Your task to perform on an android device: turn vacation reply on in the gmail app Image 0: 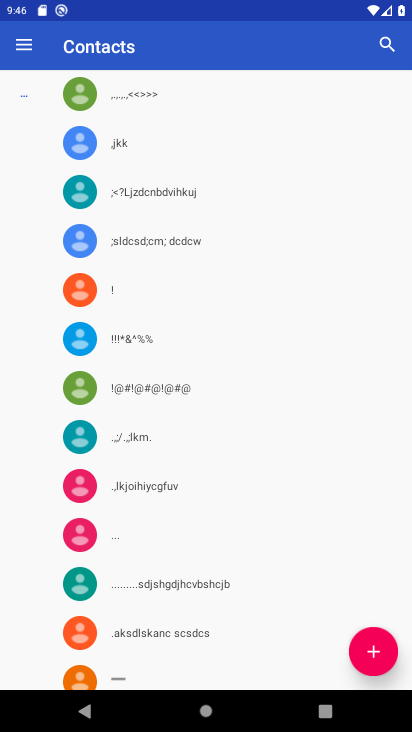
Step 0: press back button
Your task to perform on an android device: turn vacation reply on in the gmail app Image 1: 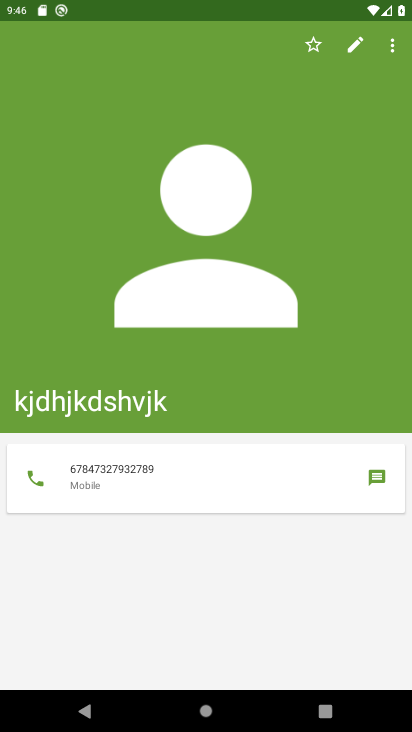
Step 1: press home button
Your task to perform on an android device: turn vacation reply on in the gmail app Image 2: 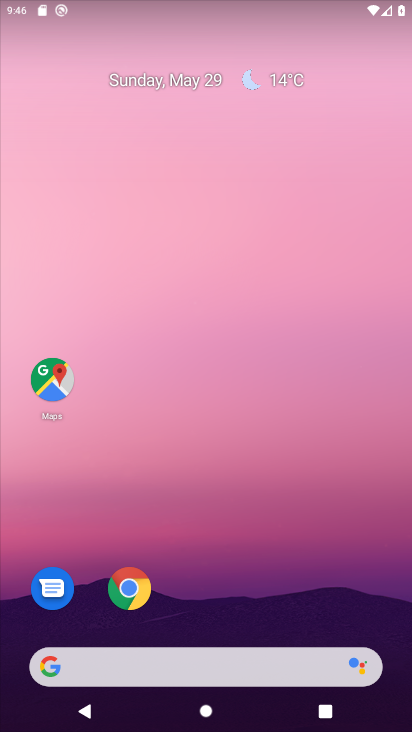
Step 2: drag from (263, 670) to (195, 44)
Your task to perform on an android device: turn vacation reply on in the gmail app Image 3: 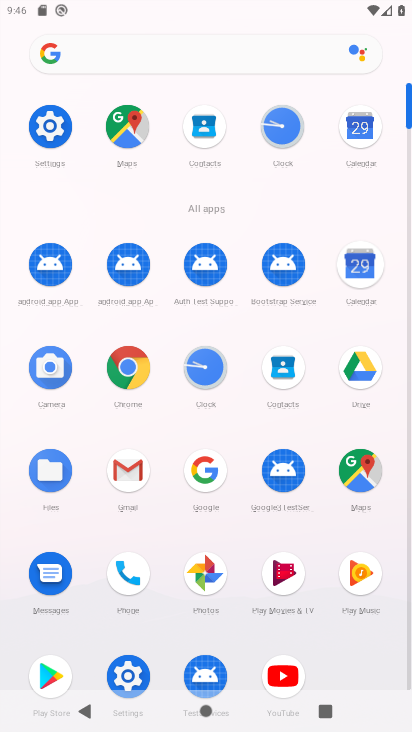
Step 3: click (128, 460)
Your task to perform on an android device: turn vacation reply on in the gmail app Image 4: 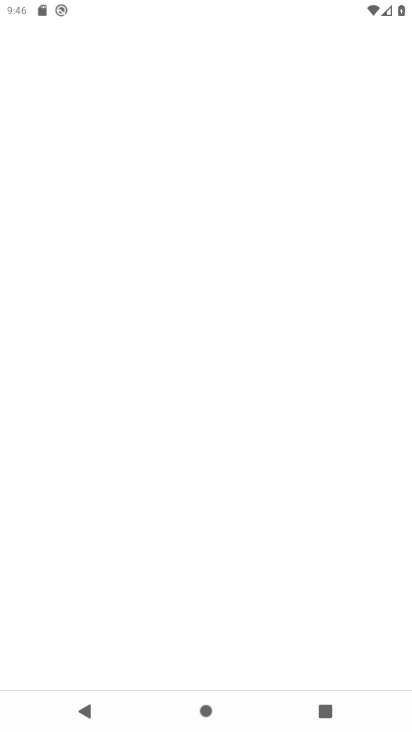
Step 4: click (130, 466)
Your task to perform on an android device: turn vacation reply on in the gmail app Image 5: 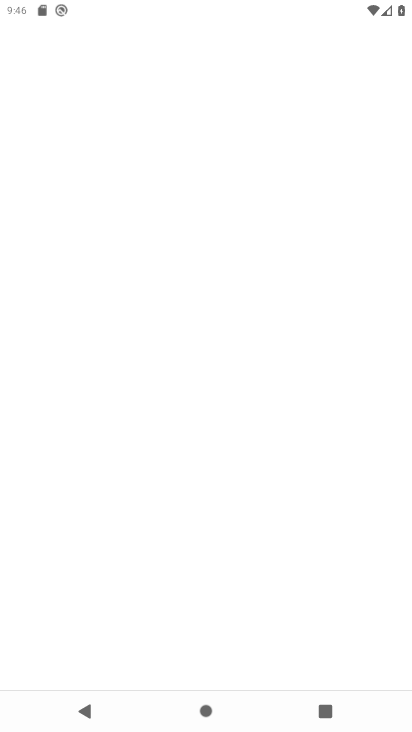
Step 5: click (130, 466)
Your task to perform on an android device: turn vacation reply on in the gmail app Image 6: 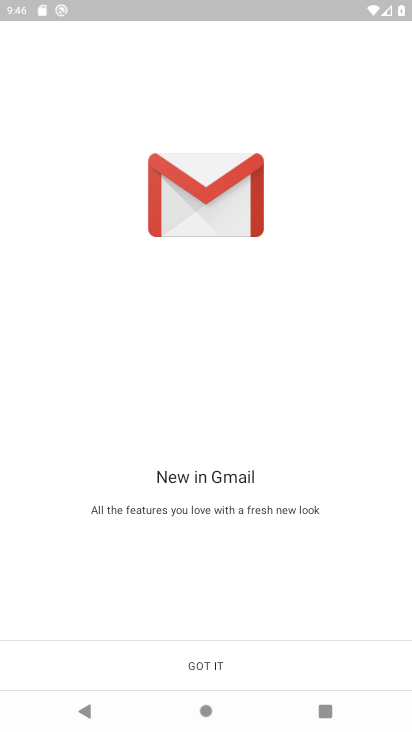
Step 6: click (215, 668)
Your task to perform on an android device: turn vacation reply on in the gmail app Image 7: 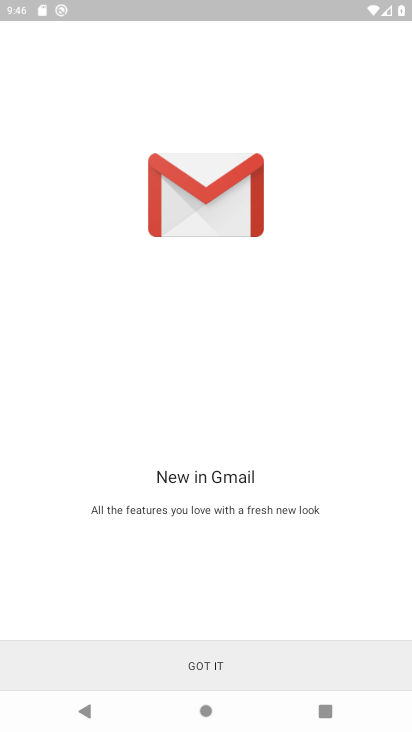
Step 7: click (217, 677)
Your task to perform on an android device: turn vacation reply on in the gmail app Image 8: 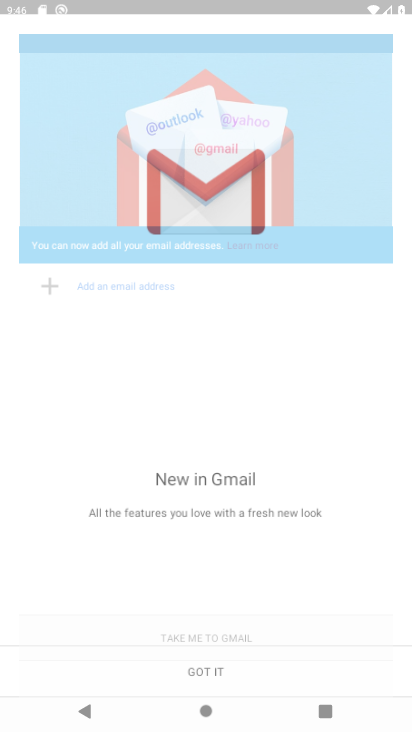
Step 8: click (219, 683)
Your task to perform on an android device: turn vacation reply on in the gmail app Image 9: 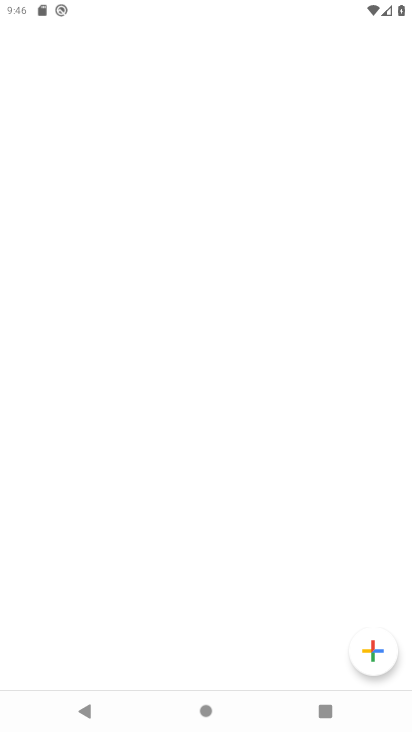
Step 9: click (199, 663)
Your task to perform on an android device: turn vacation reply on in the gmail app Image 10: 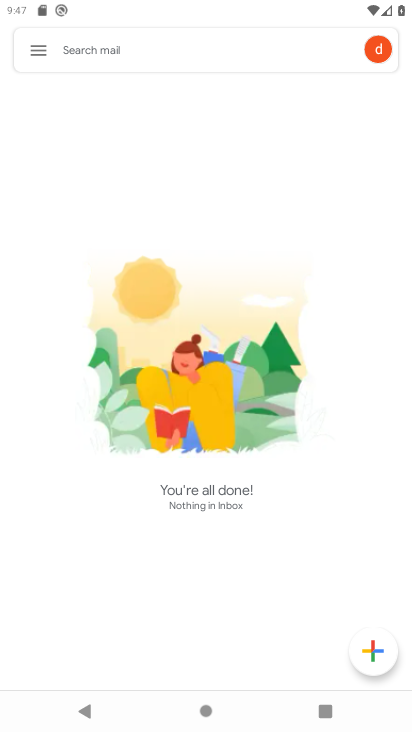
Step 10: click (35, 54)
Your task to perform on an android device: turn vacation reply on in the gmail app Image 11: 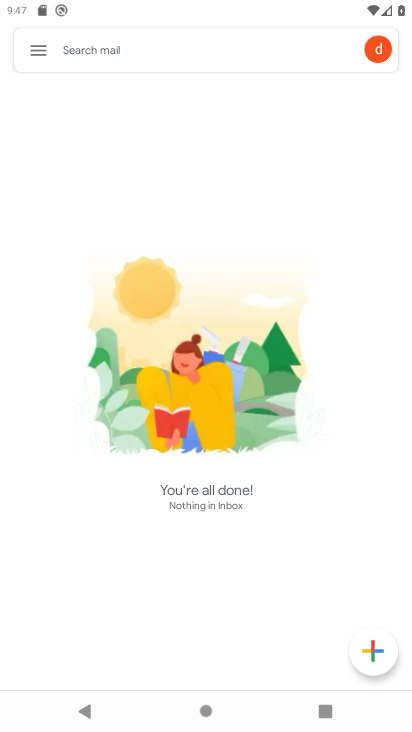
Step 11: click (36, 54)
Your task to perform on an android device: turn vacation reply on in the gmail app Image 12: 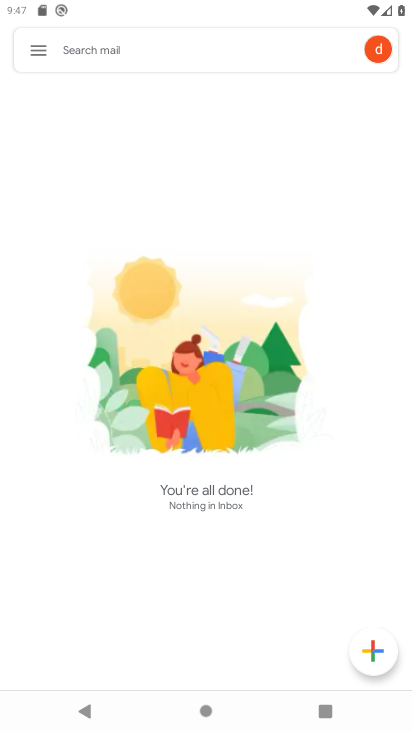
Step 12: click (34, 44)
Your task to perform on an android device: turn vacation reply on in the gmail app Image 13: 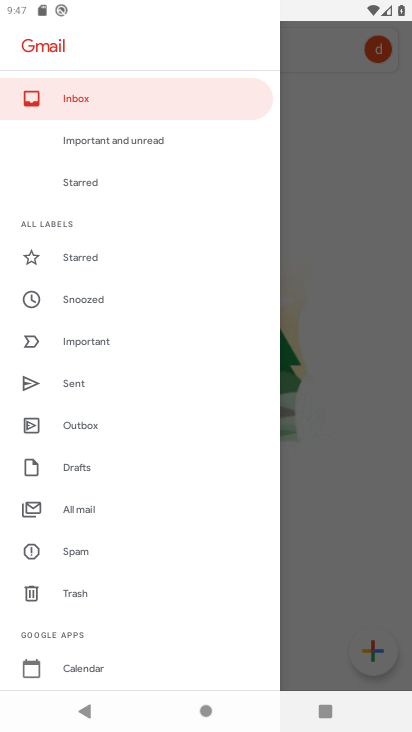
Step 13: drag from (94, 382) to (94, 242)
Your task to perform on an android device: turn vacation reply on in the gmail app Image 14: 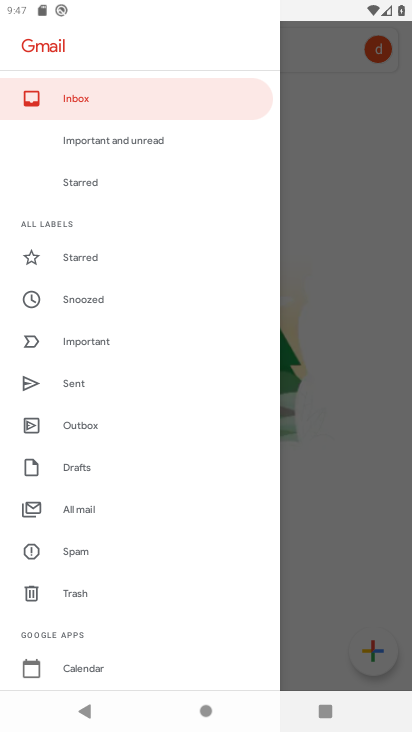
Step 14: drag from (127, 421) to (121, 98)
Your task to perform on an android device: turn vacation reply on in the gmail app Image 15: 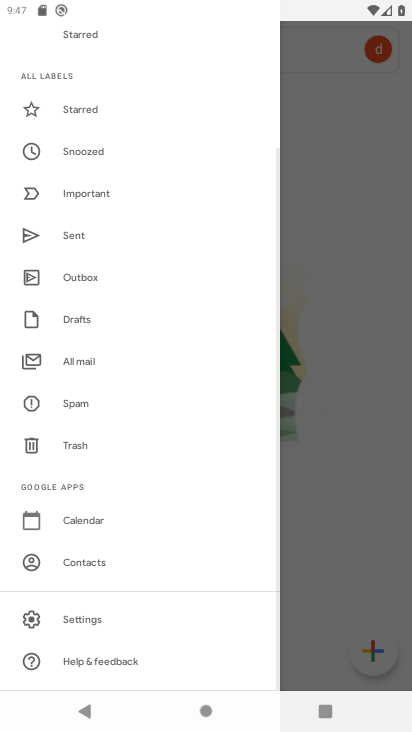
Step 15: click (71, 617)
Your task to perform on an android device: turn vacation reply on in the gmail app Image 16: 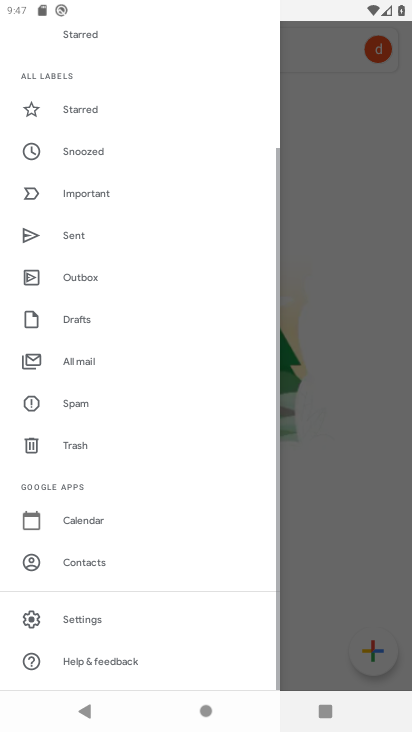
Step 16: click (75, 617)
Your task to perform on an android device: turn vacation reply on in the gmail app Image 17: 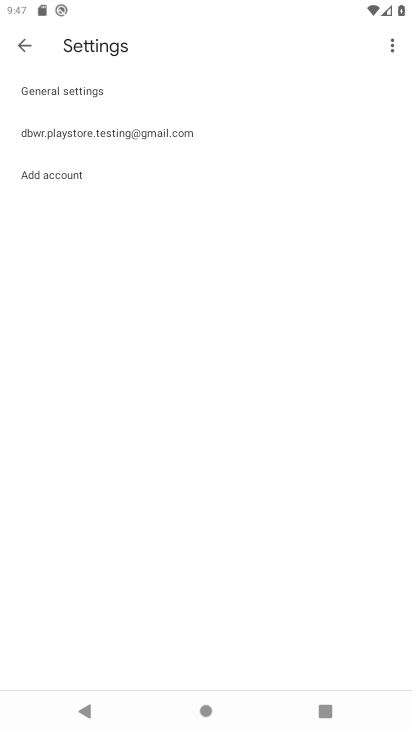
Step 17: click (83, 129)
Your task to perform on an android device: turn vacation reply on in the gmail app Image 18: 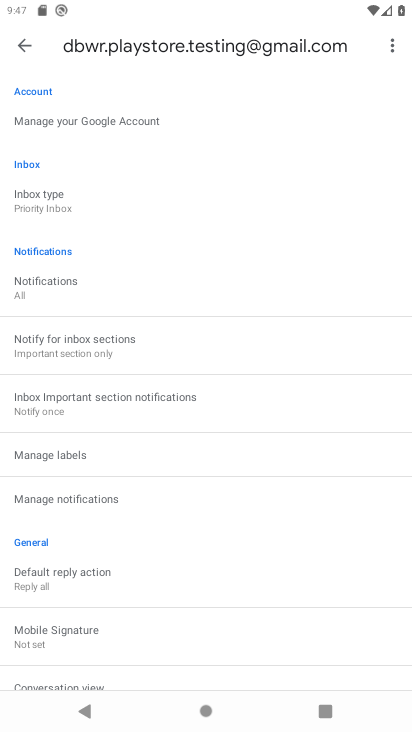
Step 18: drag from (118, 454) to (118, 175)
Your task to perform on an android device: turn vacation reply on in the gmail app Image 19: 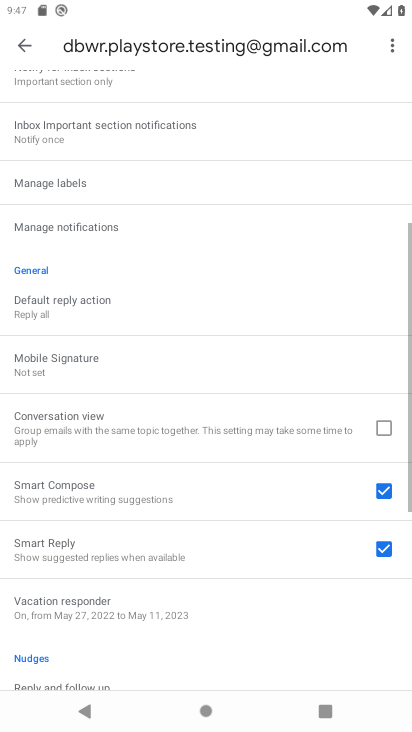
Step 19: drag from (146, 435) to (144, 129)
Your task to perform on an android device: turn vacation reply on in the gmail app Image 20: 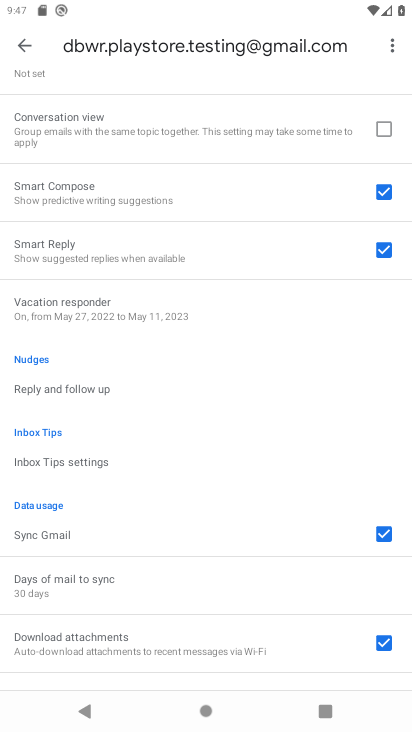
Step 20: click (85, 255)
Your task to perform on an android device: turn vacation reply on in the gmail app Image 21: 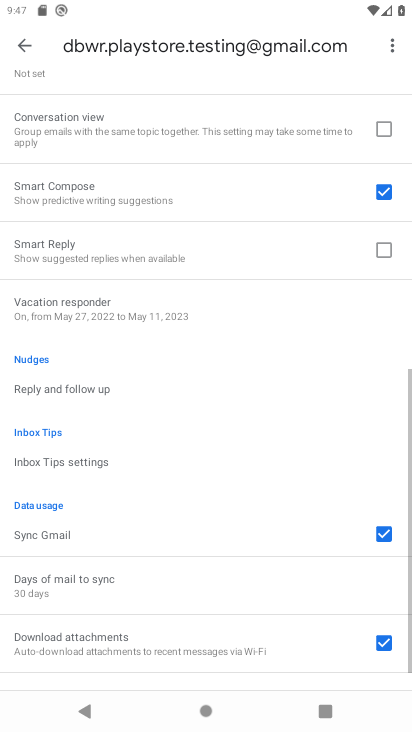
Step 21: click (386, 248)
Your task to perform on an android device: turn vacation reply on in the gmail app Image 22: 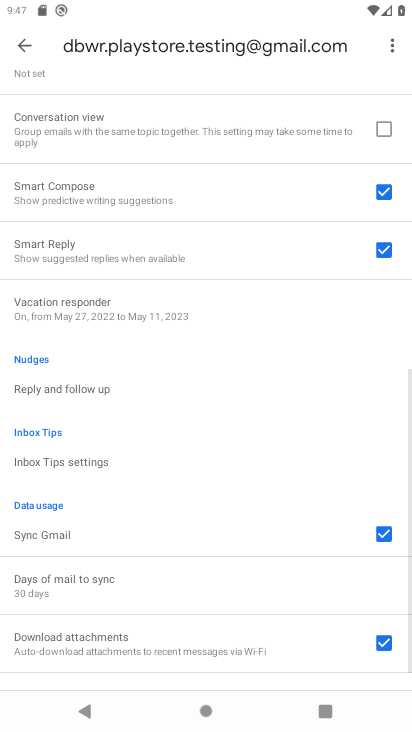
Step 22: task complete